Your task to perform on an android device: Find coffee shops on Maps Image 0: 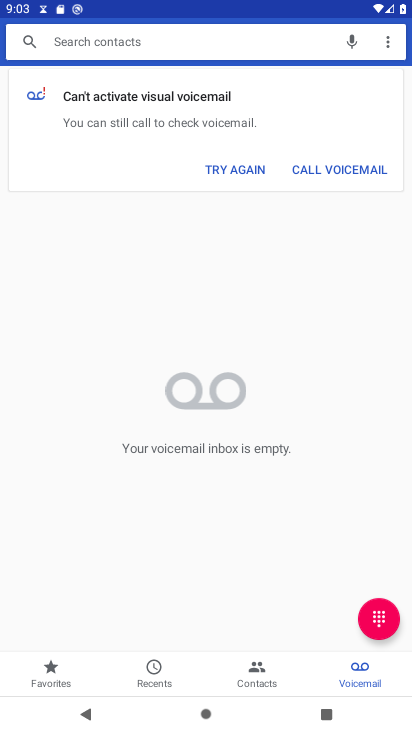
Step 0: press home button
Your task to perform on an android device: Find coffee shops on Maps Image 1: 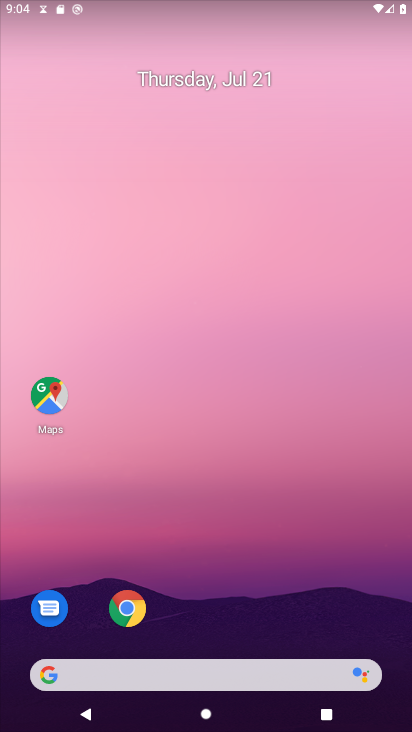
Step 1: click (47, 398)
Your task to perform on an android device: Find coffee shops on Maps Image 2: 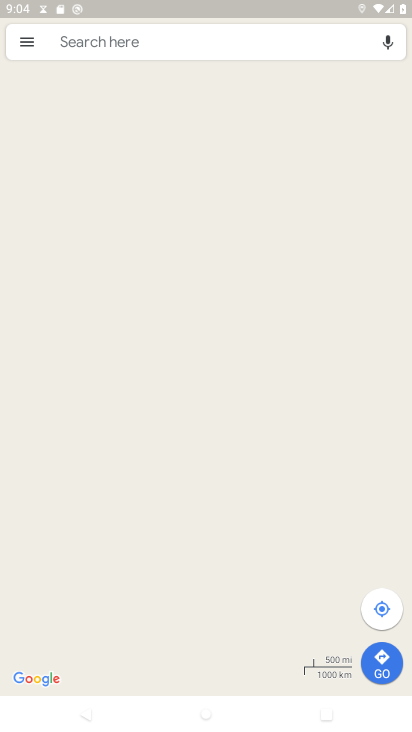
Step 2: click (165, 35)
Your task to perform on an android device: Find coffee shops on Maps Image 3: 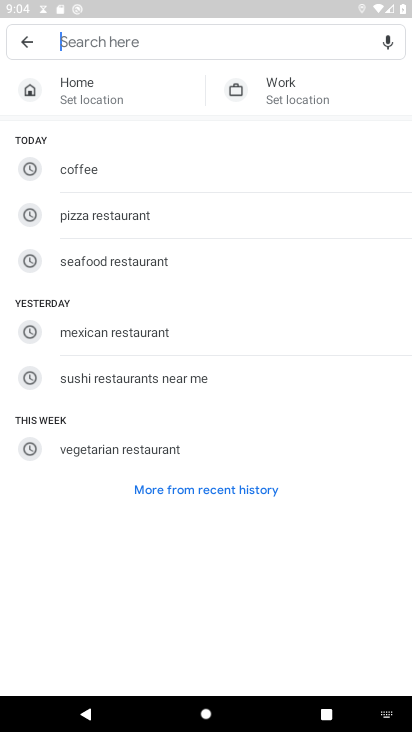
Step 3: type "coffee shops"
Your task to perform on an android device: Find coffee shops on Maps Image 4: 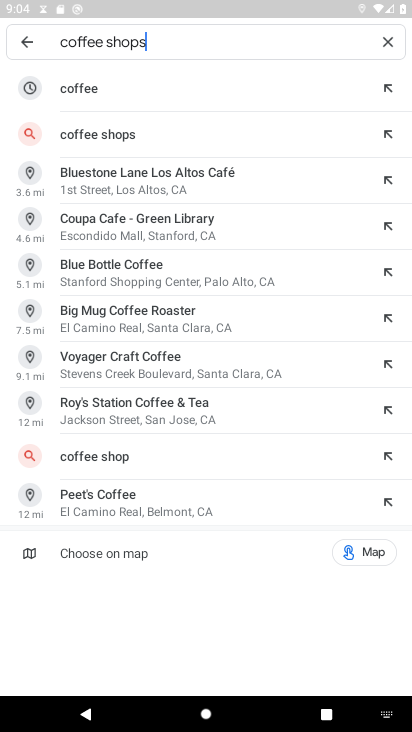
Step 4: click (132, 133)
Your task to perform on an android device: Find coffee shops on Maps Image 5: 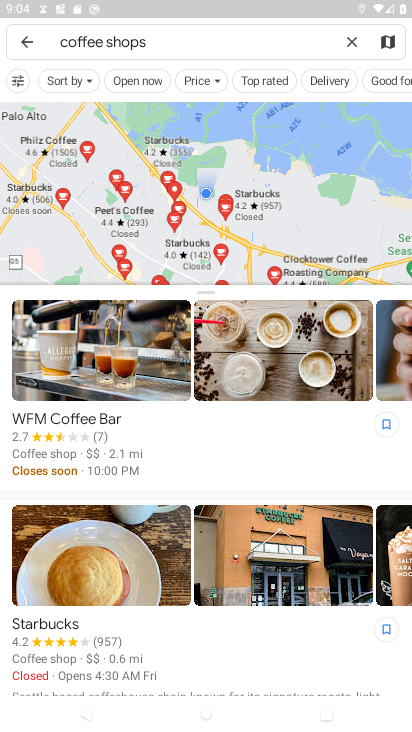
Step 5: task complete